Your task to perform on an android device: empty trash in google photos Image 0: 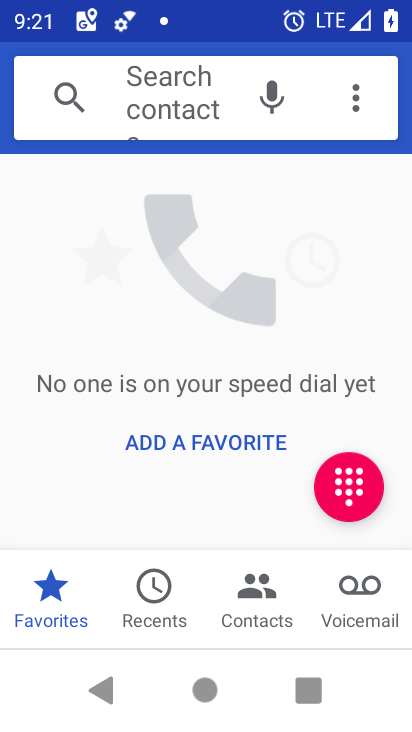
Step 0: press home button
Your task to perform on an android device: empty trash in google photos Image 1: 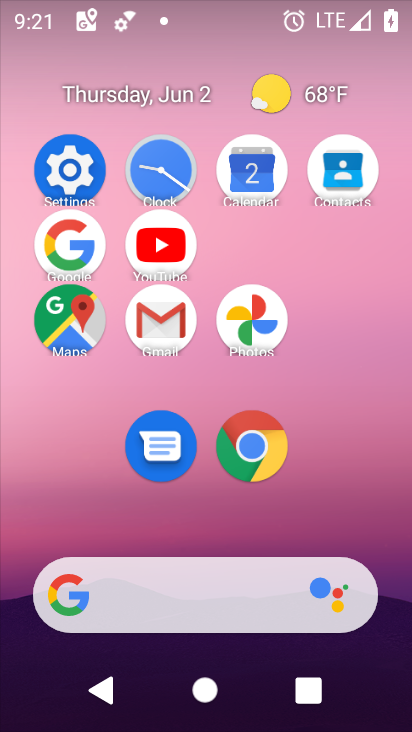
Step 1: click (262, 318)
Your task to perform on an android device: empty trash in google photos Image 2: 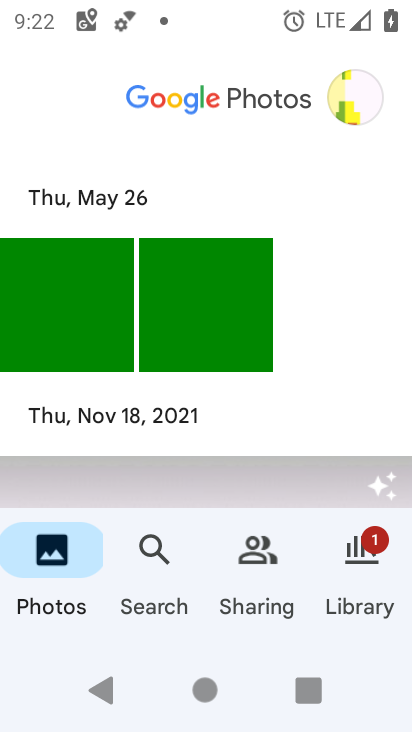
Step 2: click (368, 94)
Your task to perform on an android device: empty trash in google photos Image 3: 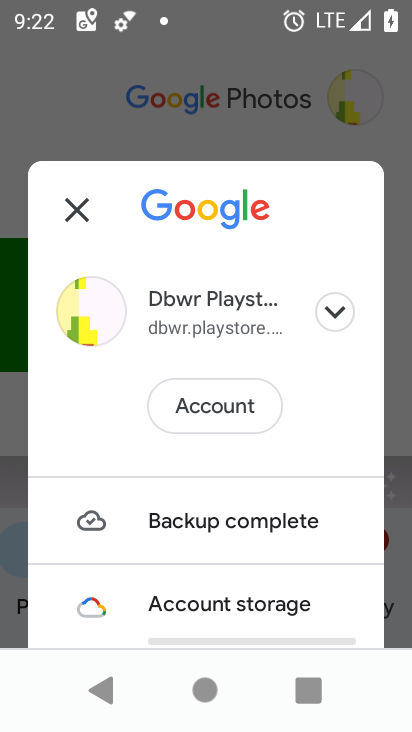
Step 3: drag from (272, 557) to (243, 241)
Your task to perform on an android device: empty trash in google photos Image 4: 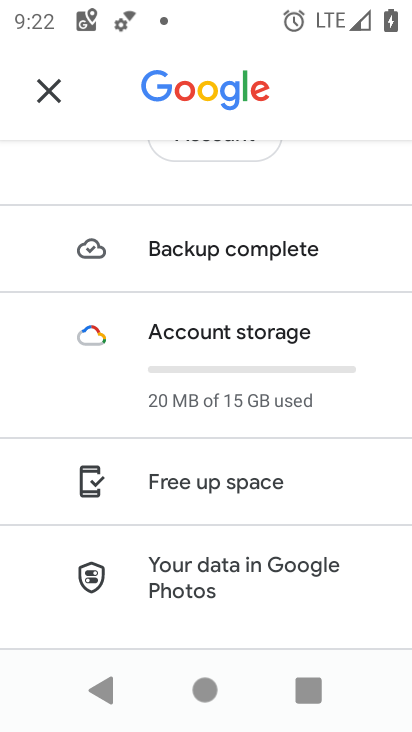
Step 4: drag from (218, 480) to (218, 157)
Your task to perform on an android device: empty trash in google photos Image 5: 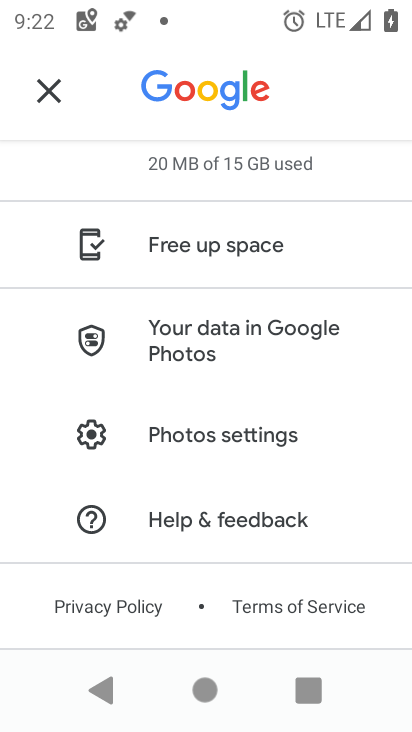
Step 5: drag from (237, 470) to (227, 138)
Your task to perform on an android device: empty trash in google photos Image 6: 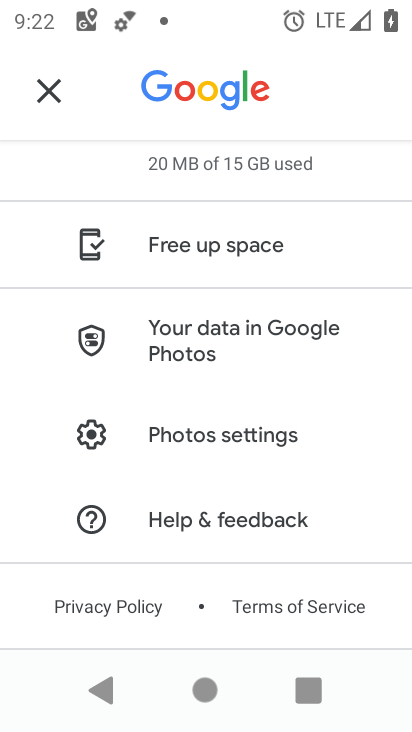
Step 6: click (213, 406)
Your task to perform on an android device: empty trash in google photos Image 7: 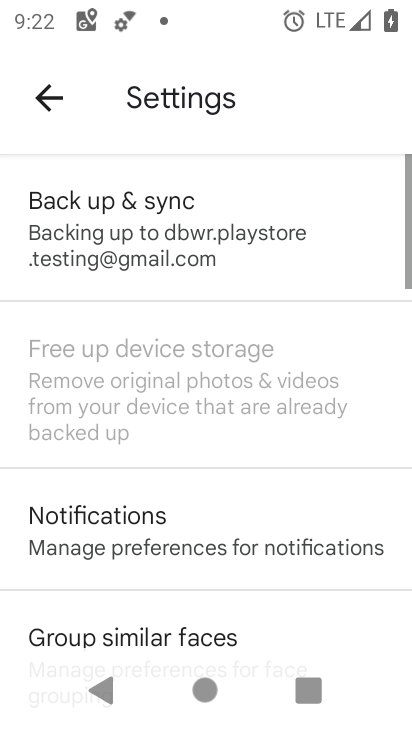
Step 7: task complete